Your task to perform on an android device: Open Google Maps Image 0: 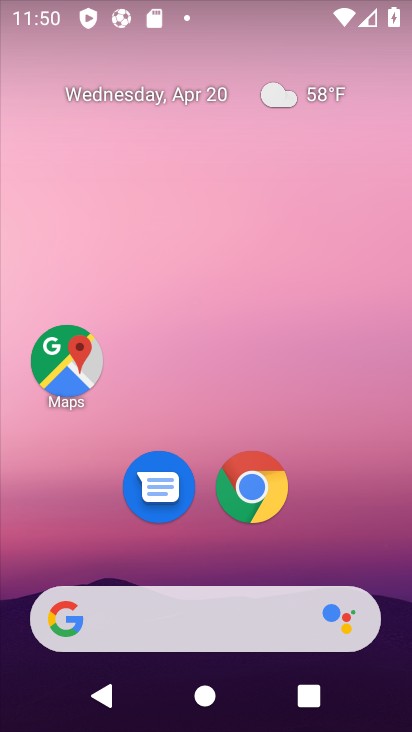
Step 0: click (60, 360)
Your task to perform on an android device: Open Google Maps Image 1: 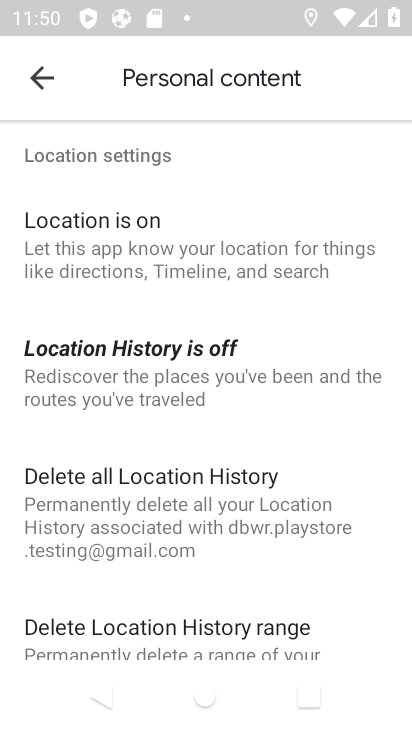
Step 1: click (32, 80)
Your task to perform on an android device: Open Google Maps Image 2: 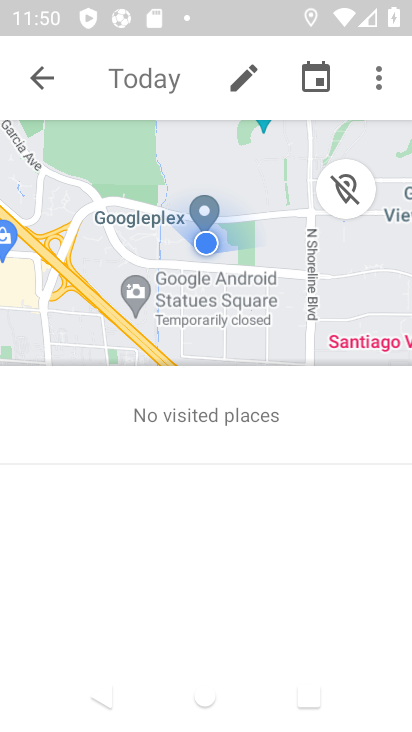
Step 2: click (40, 79)
Your task to perform on an android device: Open Google Maps Image 3: 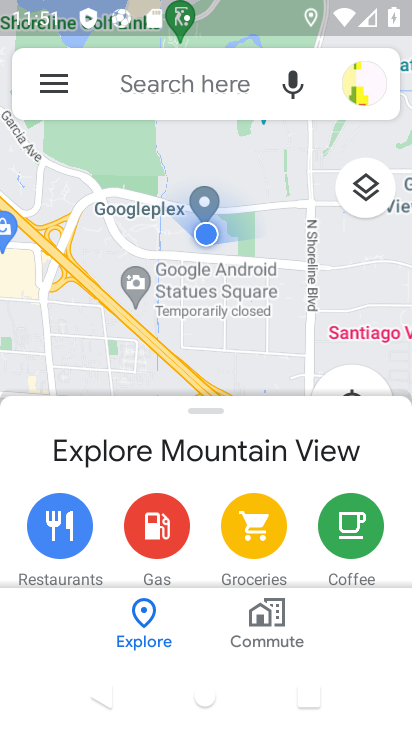
Step 3: task complete